Your task to perform on an android device: Go to battery settings Image 0: 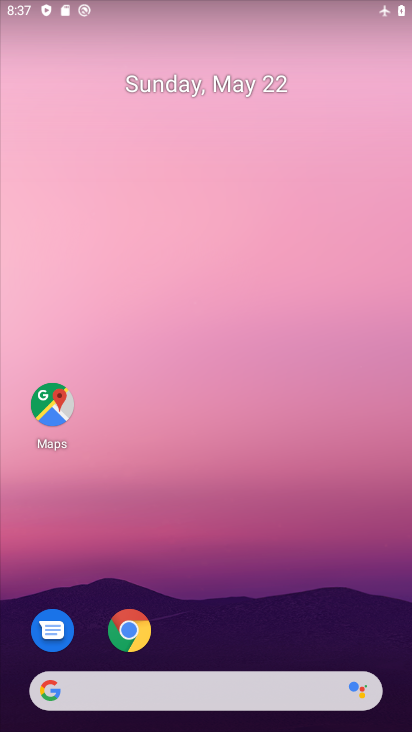
Step 0: drag from (388, 641) to (352, 365)
Your task to perform on an android device: Go to battery settings Image 1: 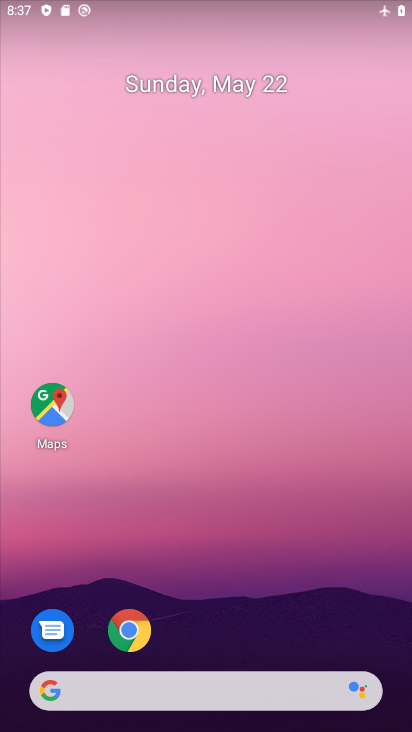
Step 1: drag from (395, 711) to (342, 254)
Your task to perform on an android device: Go to battery settings Image 2: 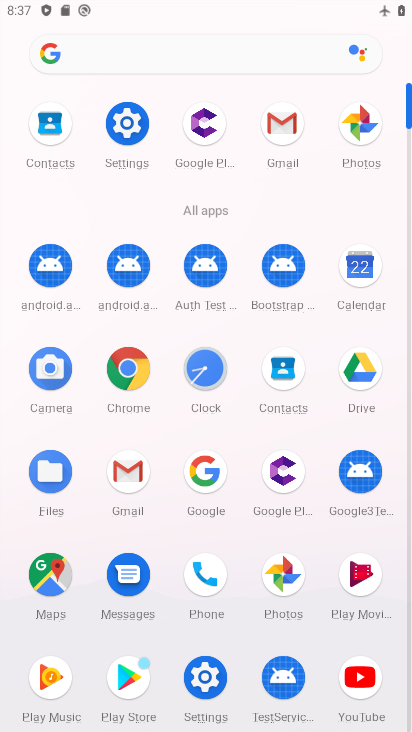
Step 2: click (208, 661)
Your task to perform on an android device: Go to battery settings Image 3: 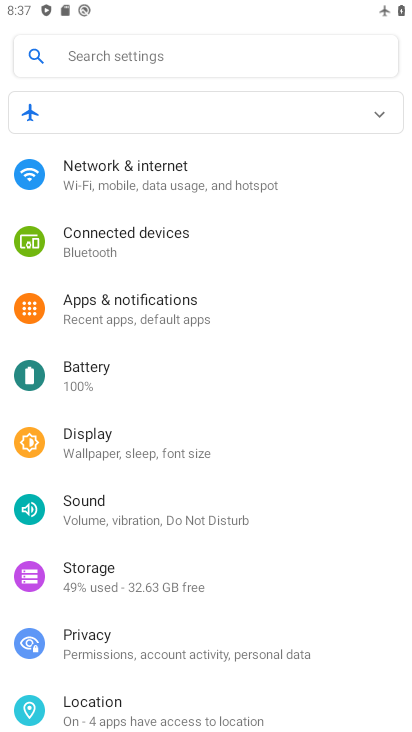
Step 3: drag from (350, 693) to (294, 340)
Your task to perform on an android device: Go to battery settings Image 4: 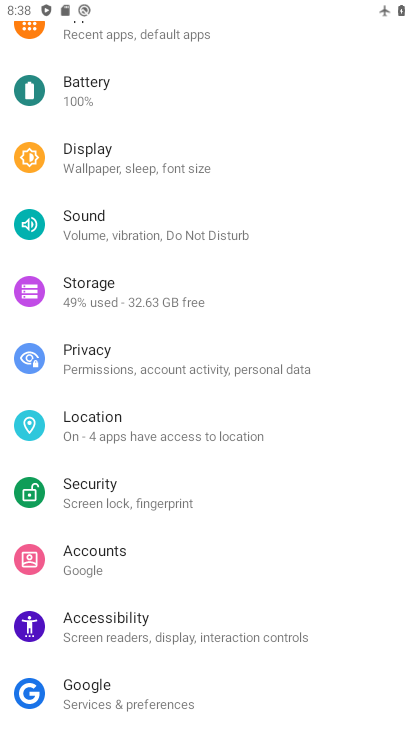
Step 4: click (79, 92)
Your task to perform on an android device: Go to battery settings Image 5: 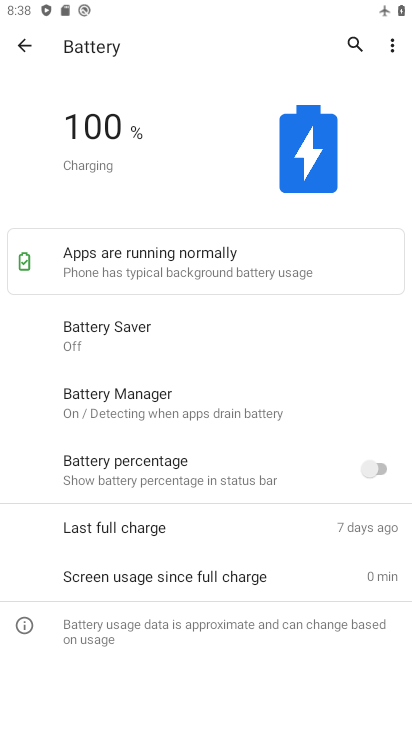
Step 5: task complete